Your task to perform on an android device: turn on improve location accuracy Image 0: 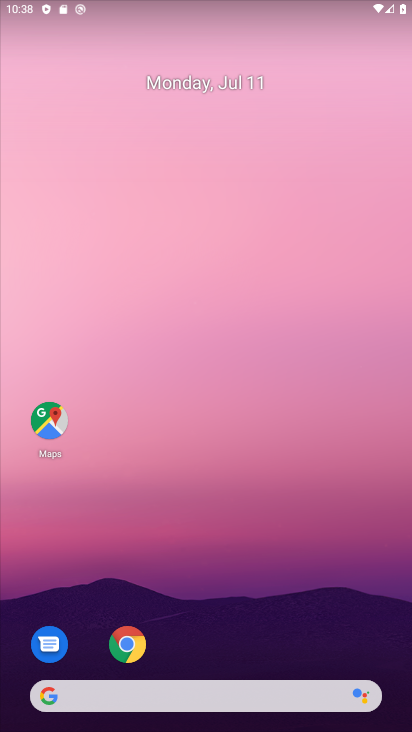
Step 0: drag from (151, 685) to (80, 82)
Your task to perform on an android device: turn on improve location accuracy Image 1: 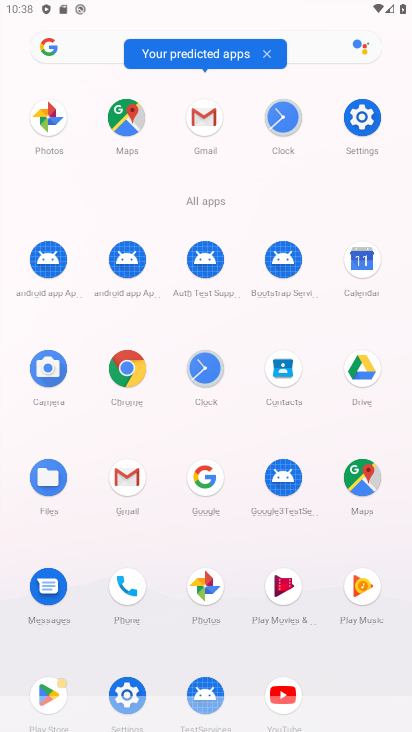
Step 1: click (364, 135)
Your task to perform on an android device: turn on improve location accuracy Image 2: 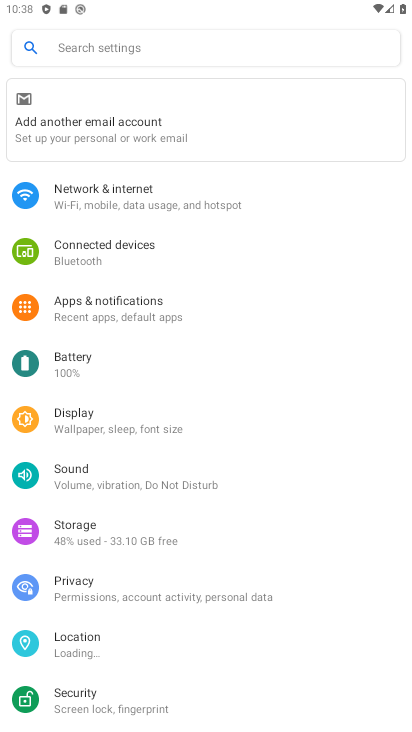
Step 2: click (148, 641)
Your task to perform on an android device: turn on improve location accuracy Image 3: 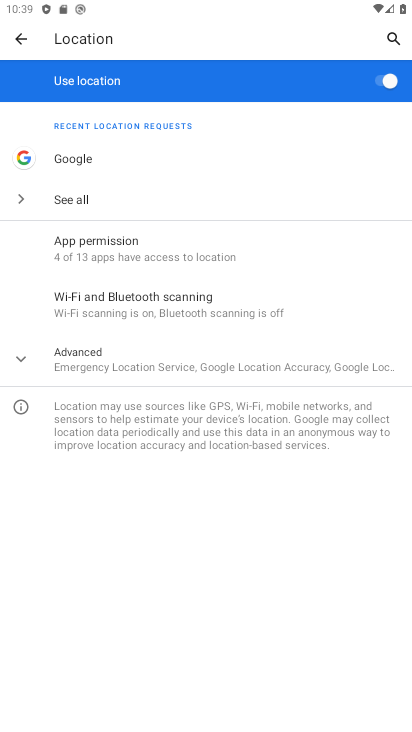
Step 3: click (109, 362)
Your task to perform on an android device: turn on improve location accuracy Image 4: 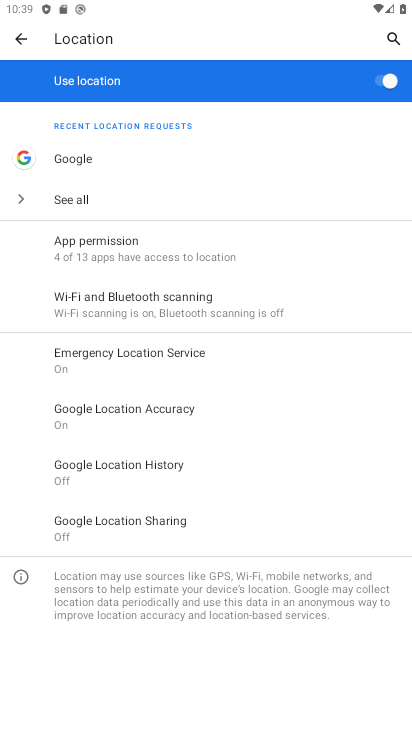
Step 4: click (156, 420)
Your task to perform on an android device: turn on improve location accuracy Image 5: 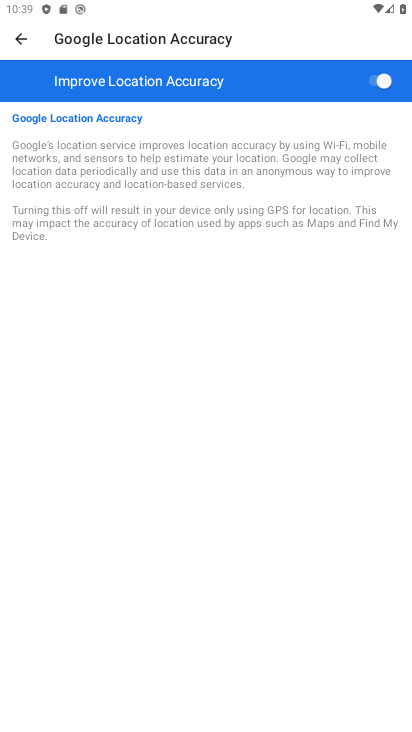
Step 5: task complete